Your task to perform on an android device: search for starred emails in the gmail app Image 0: 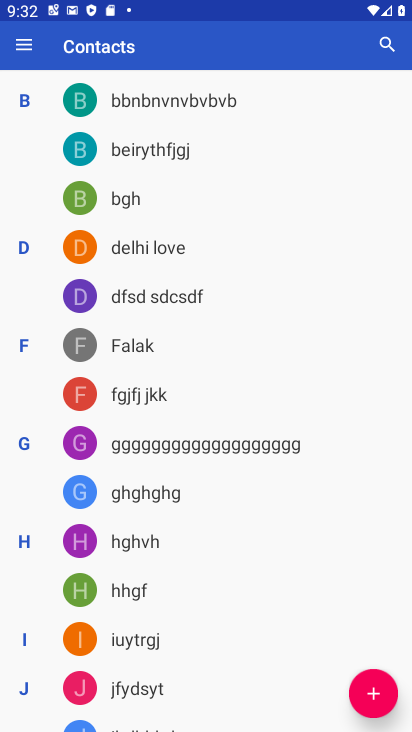
Step 0: press home button
Your task to perform on an android device: search for starred emails in the gmail app Image 1: 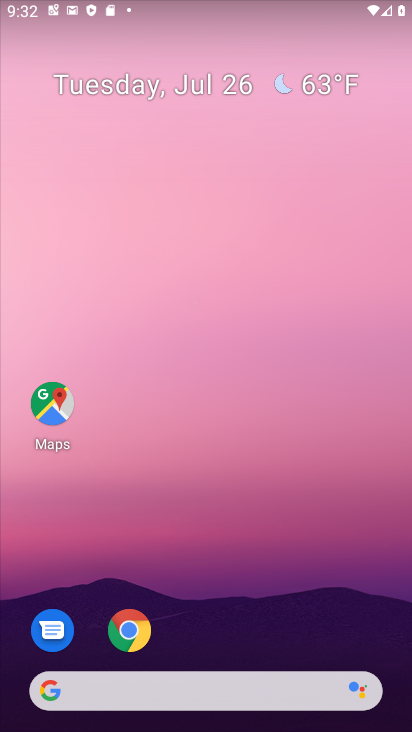
Step 1: drag from (200, 649) to (207, 128)
Your task to perform on an android device: search for starred emails in the gmail app Image 2: 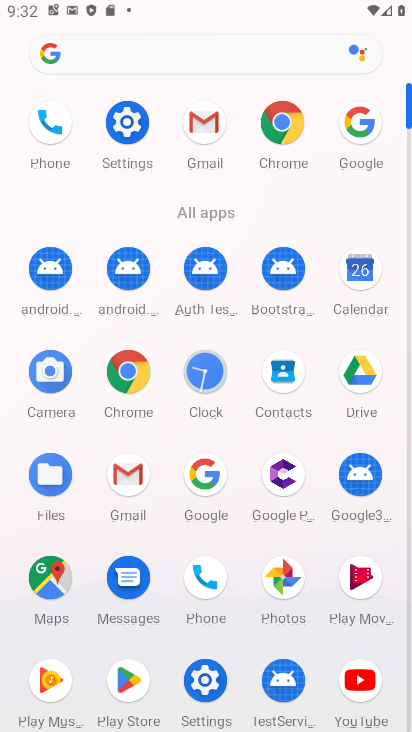
Step 2: click (128, 473)
Your task to perform on an android device: search for starred emails in the gmail app Image 3: 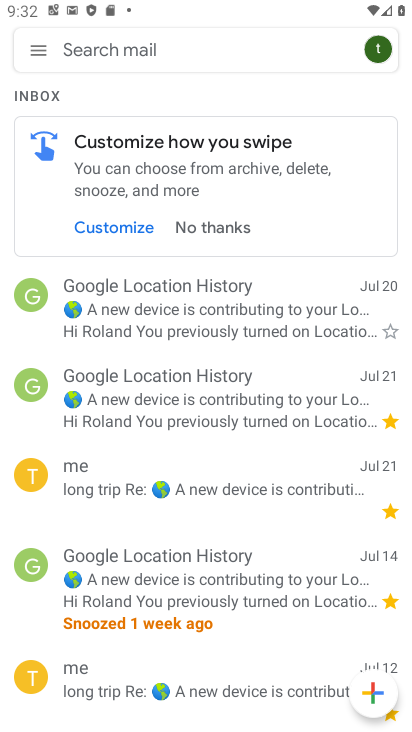
Step 3: click (38, 45)
Your task to perform on an android device: search for starred emails in the gmail app Image 4: 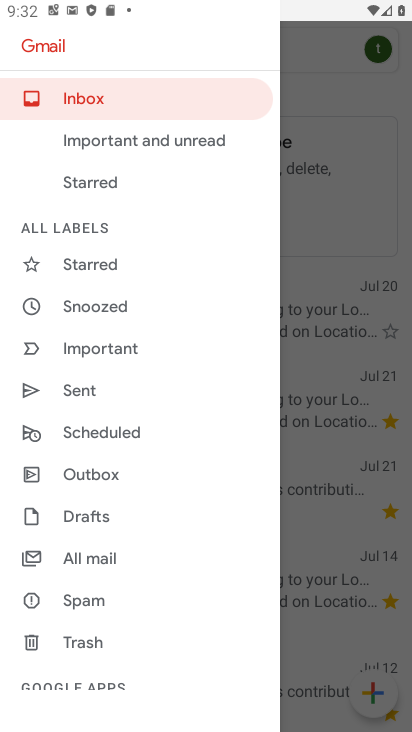
Step 4: click (97, 269)
Your task to perform on an android device: search for starred emails in the gmail app Image 5: 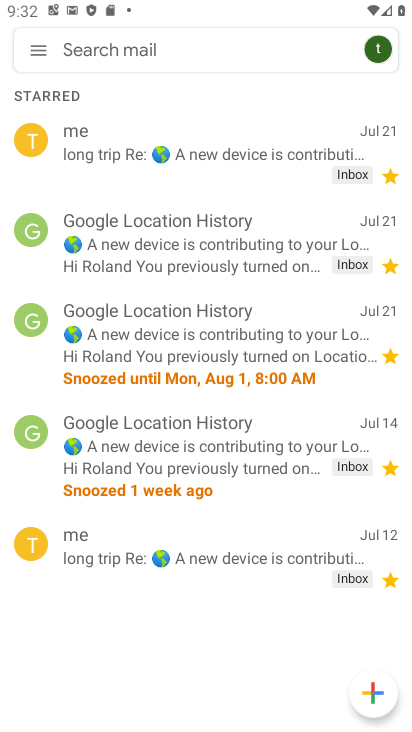
Step 5: task complete